Your task to perform on an android device: Go to accessibility settings Image 0: 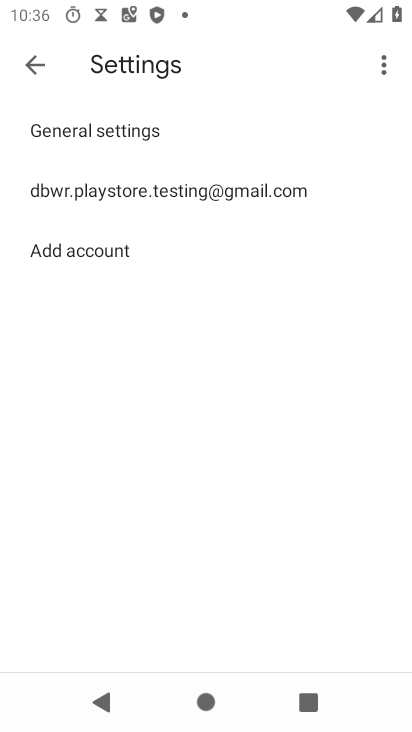
Step 0: press home button
Your task to perform on an android device: Go to accessibility settings Image 1: 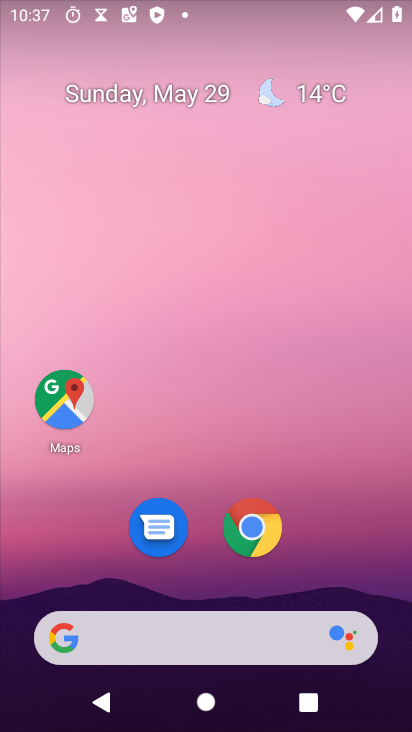
Step 1: drag from (163, 553) to (241, 25)
Your task to perform on an android device: Go to accessibility settings Image 2: 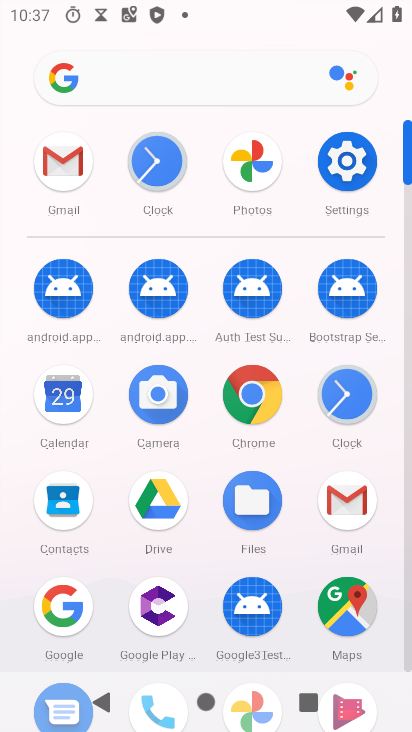
Step 2: click (350, 160)
Your task to perform on an android device: Go to accessibility settings Image 3: 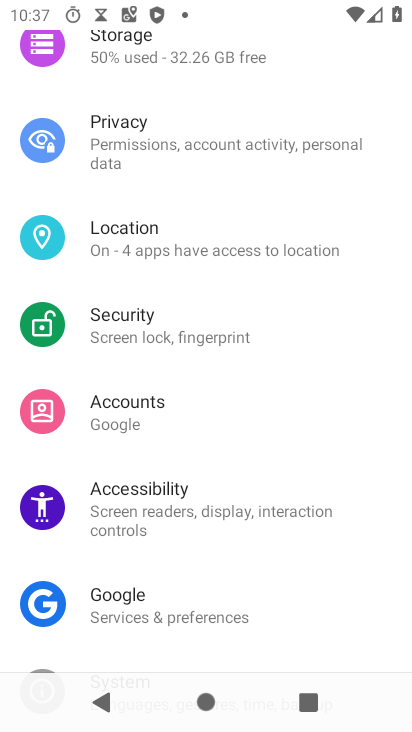
Step 3: click (150, 494)
Your task to perform on an android device: Go to accessibility settings Image 4: 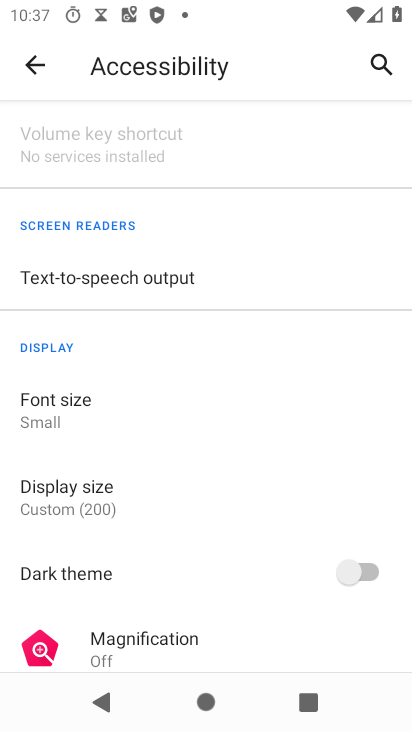
Step 4: task complete